Your task to perform on an android device: Go to Reddit.com Image 0: 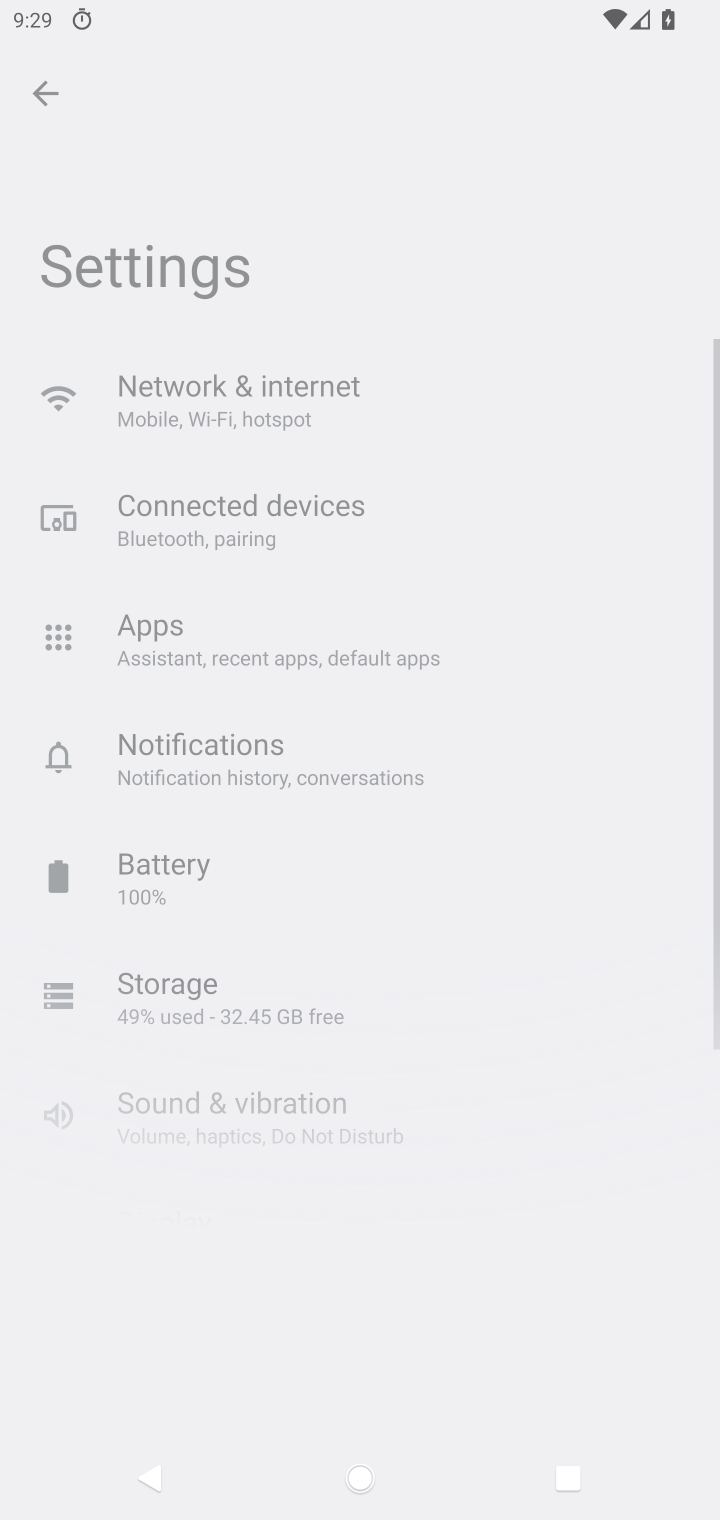
Step 0: press home button
Your task to perform on an android device: Go to Reddit.com Image 1: 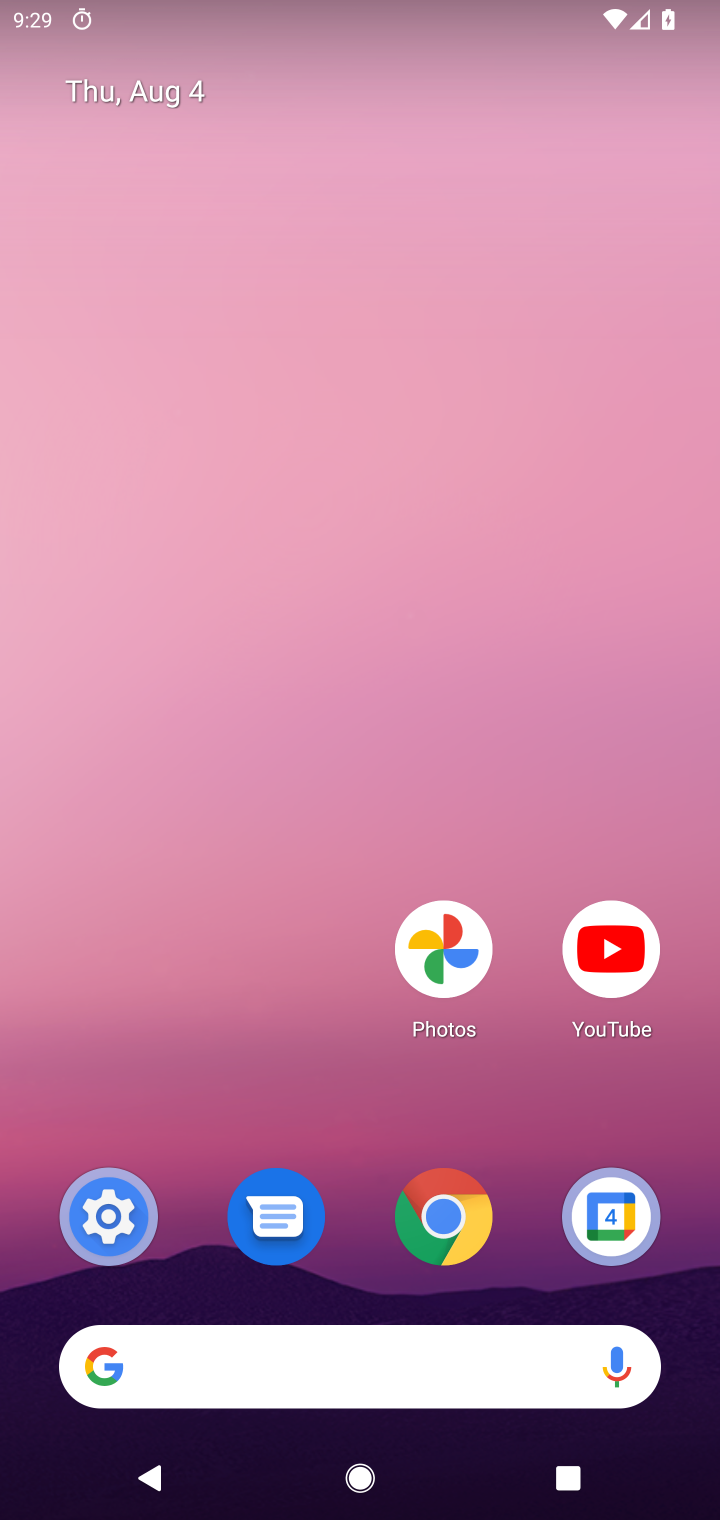
Step 1: drag from (371, 1190) to (386, 278)
Your task to perform on an android device: Go to Reddit.com Image 2: 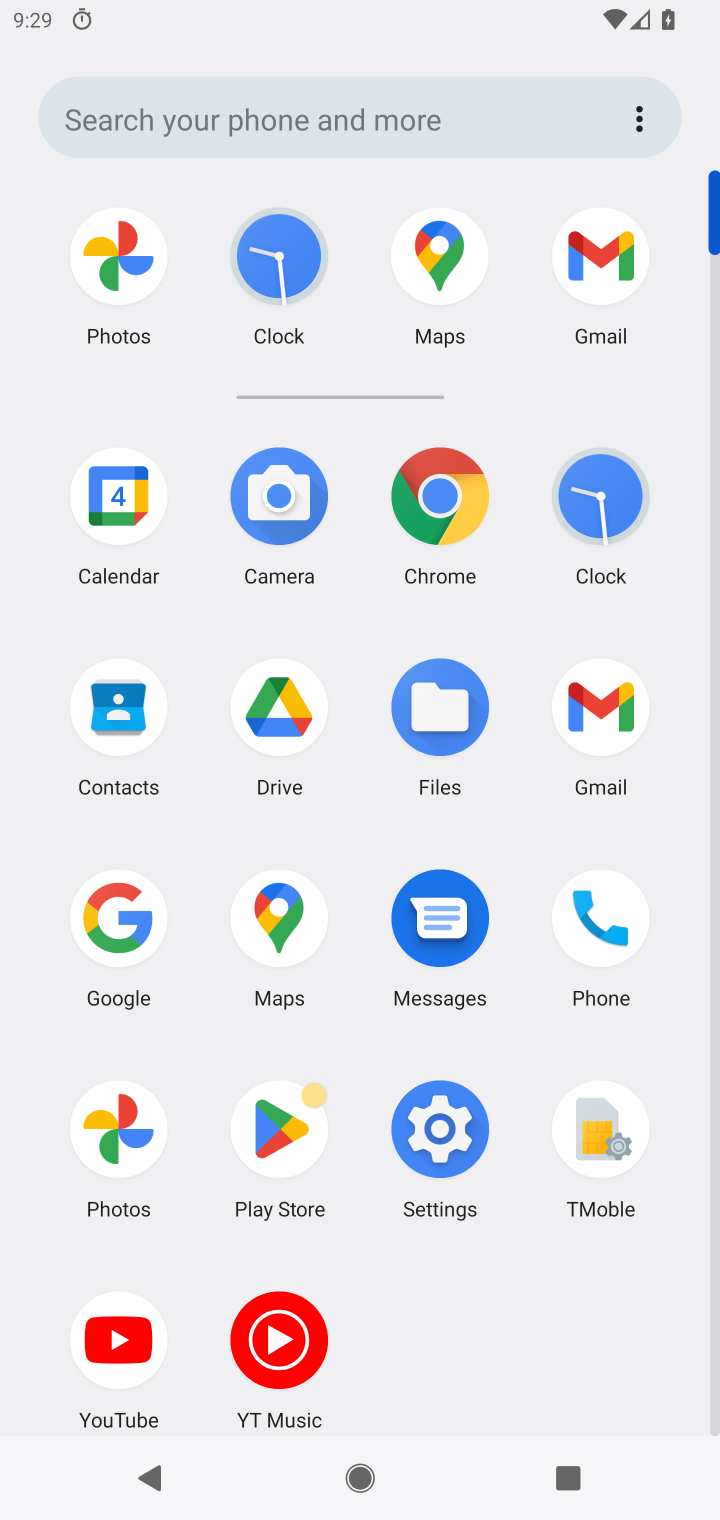
Step 2: click (440, 505)
Your task to perform on an android device: Go to Reddit.com Image 3: 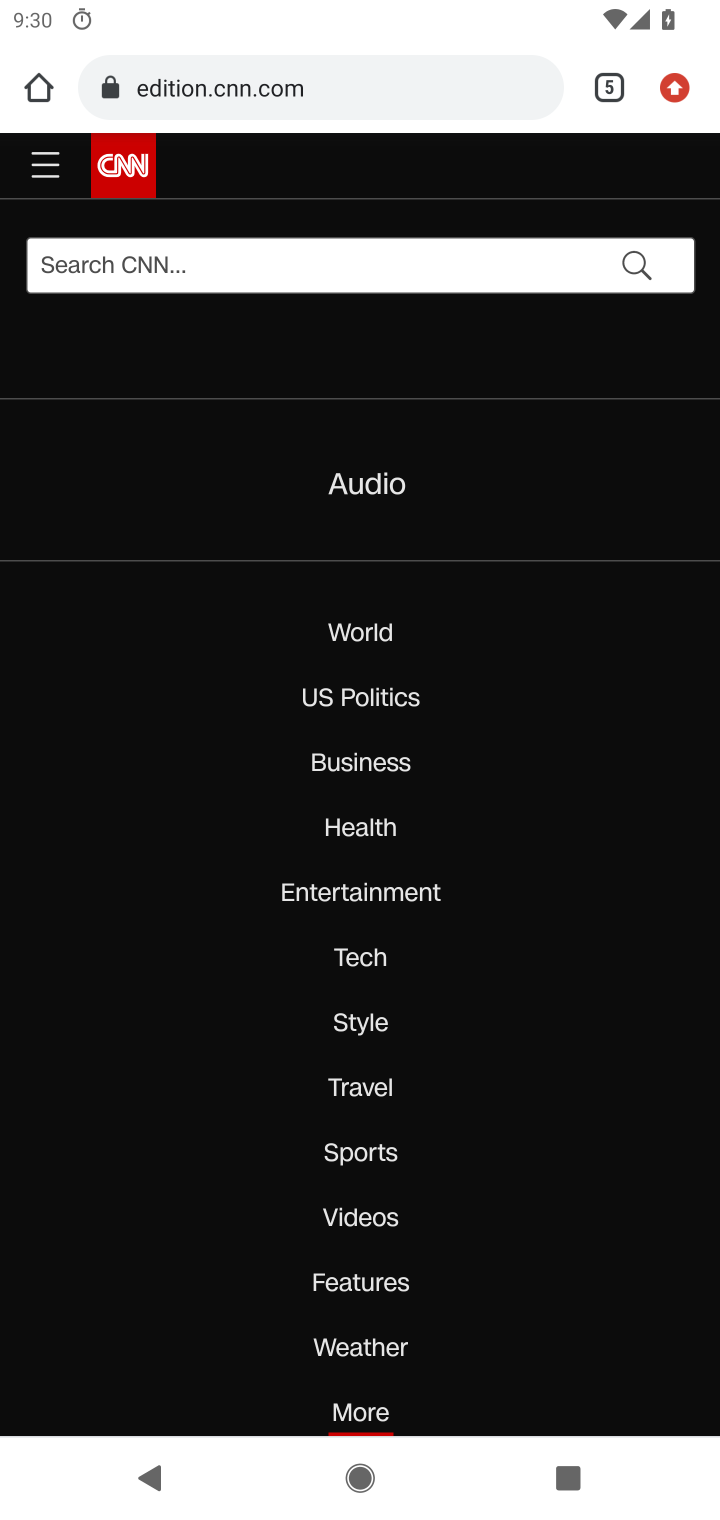
Step 3: drag from (681, 93) to (400, 281)
Your task to perform on an android device: Go to Reddit.com Image 4: 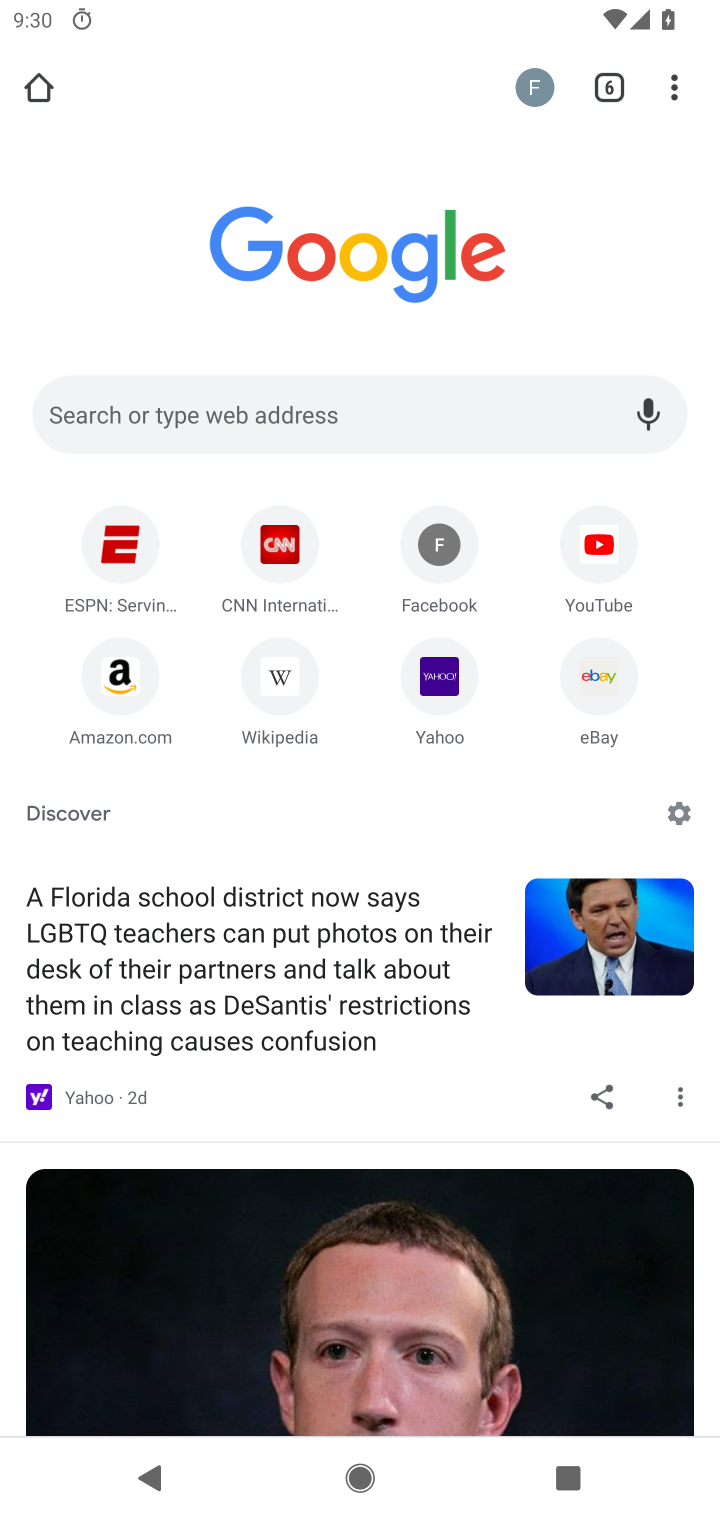
Step 4: click (335, 419)
Your task to perform on an android device: Go to Reddit.com Image 5: 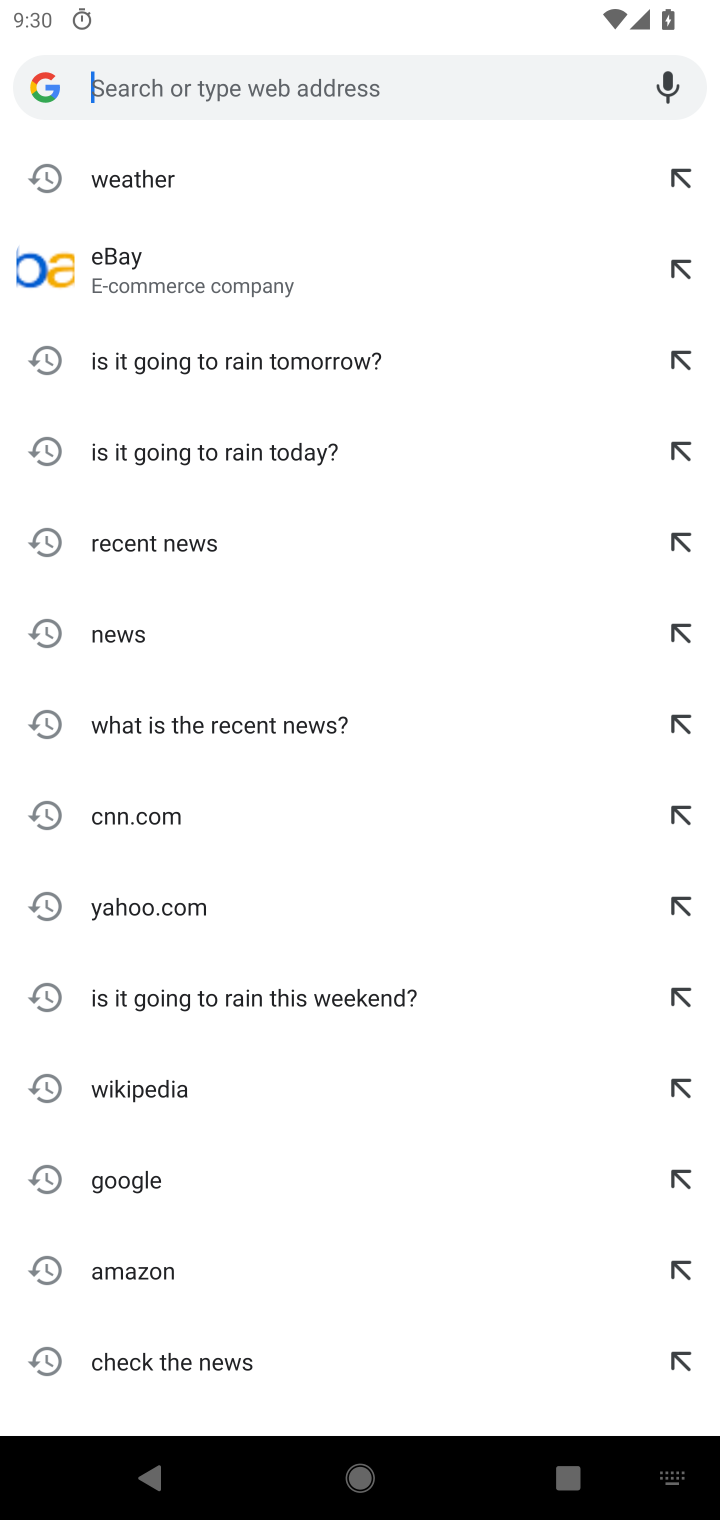
Step 5: type "Reddit.com"
Your task to perform on an android device: Go to Reddit.com Image 6: 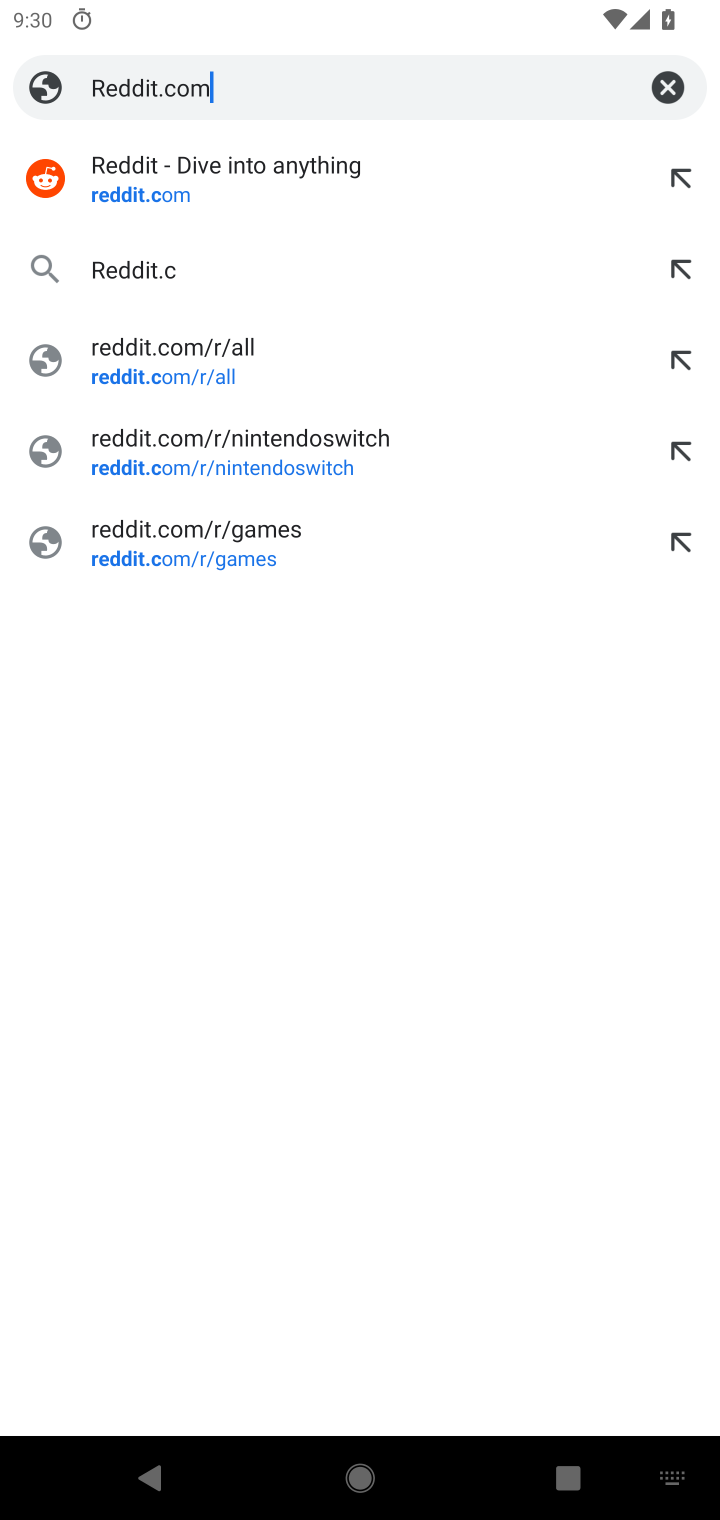
Step 6: type ""
Your task to perform on an android device: Go to Reddit.com Image 7: 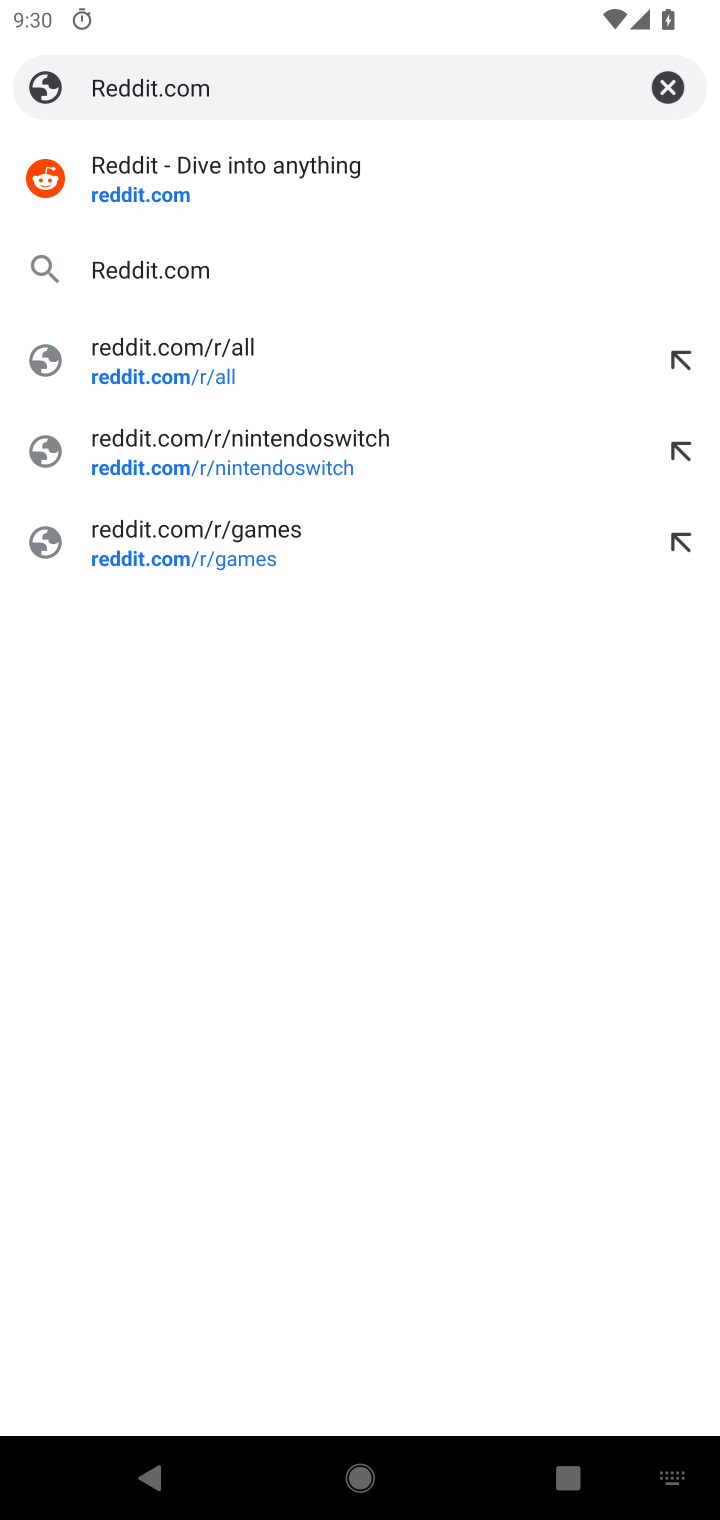
Step 7: click (185, 157)
Your task to perform on an android device: Go to Reddit.com Image 8: 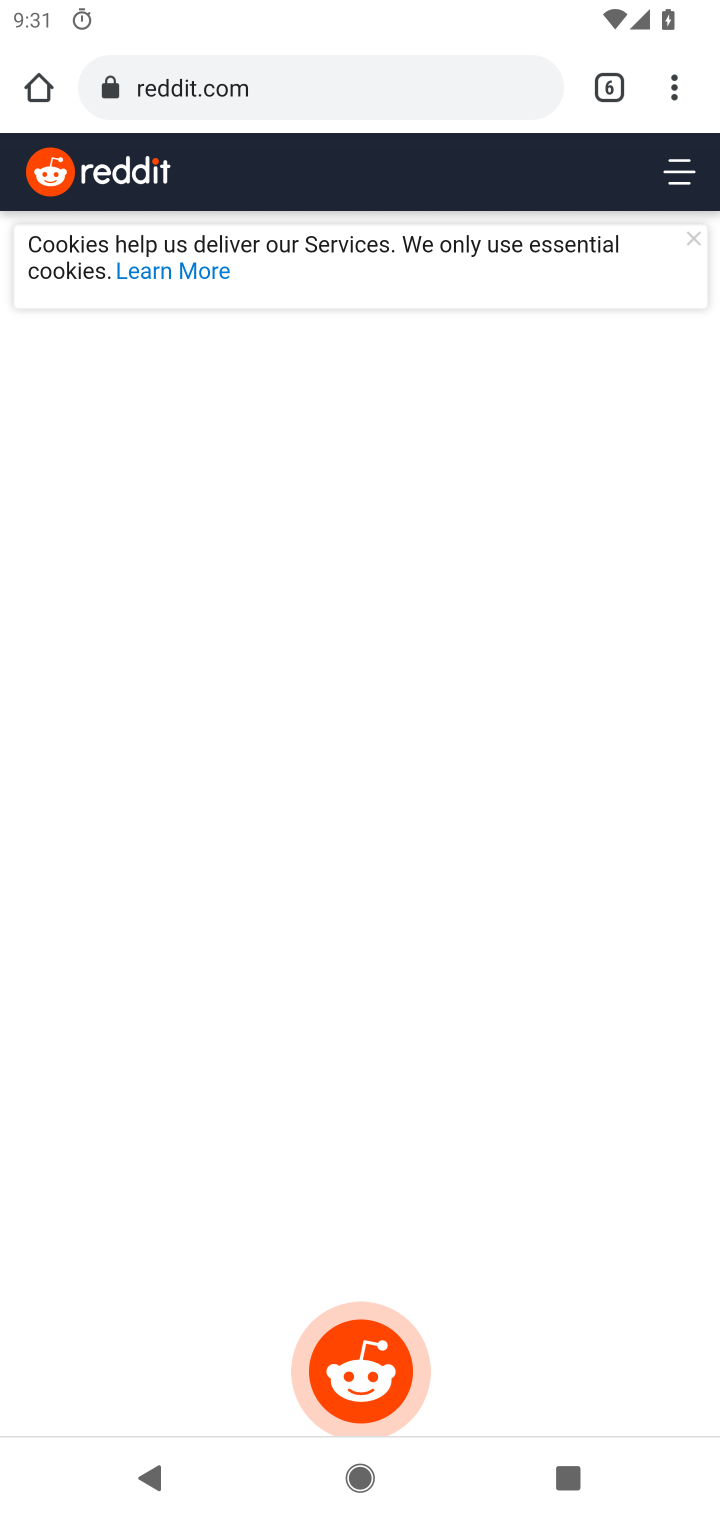
Step 8: task complete